Your task to perform on an android device: Open network settings Image 0: 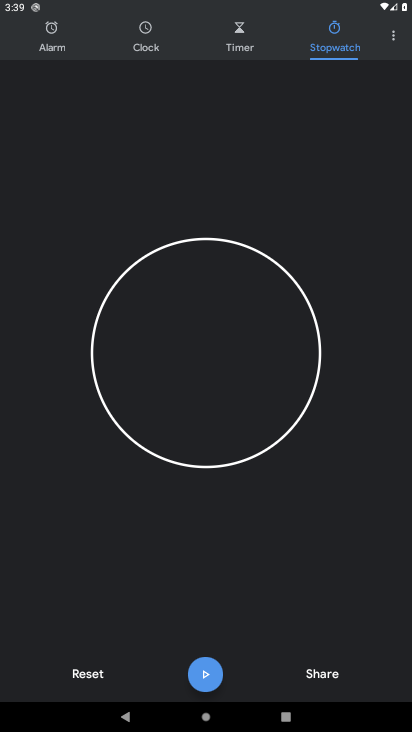
Step 0: press home button
Your task to perform on an android device: Open network settings Image 1: 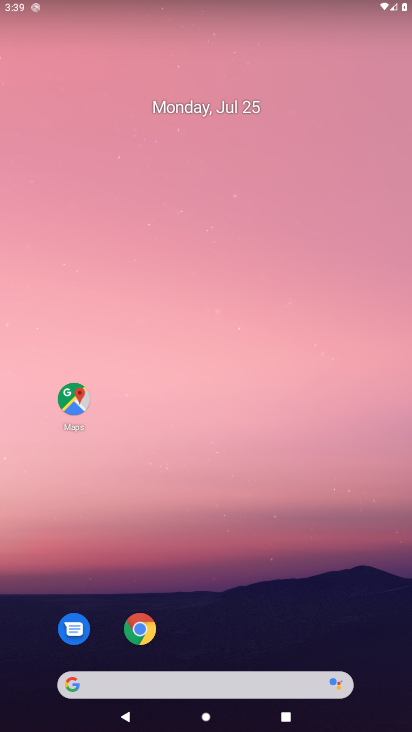
Step 1: drag from (27, 643) to (258, 135)
Your task to perform on an android device: Open network settings Image 2: 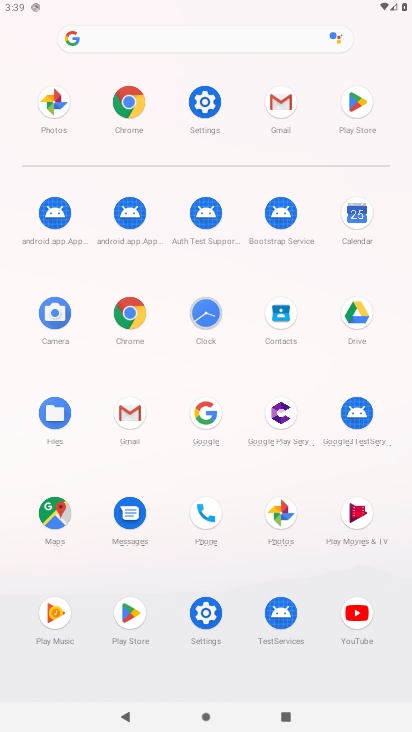
Step 2: click (210, 591)
Your task to perform on an android device: Open network settings Image 3: 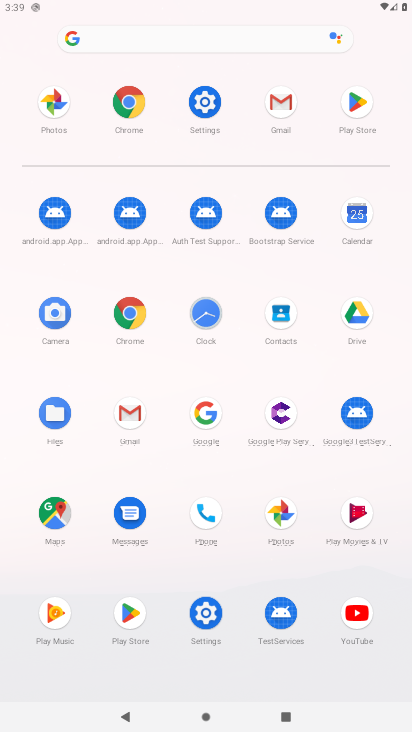
Step 3: click (208, 611)
Your task to perform on an android device: Open network settings Image 4: 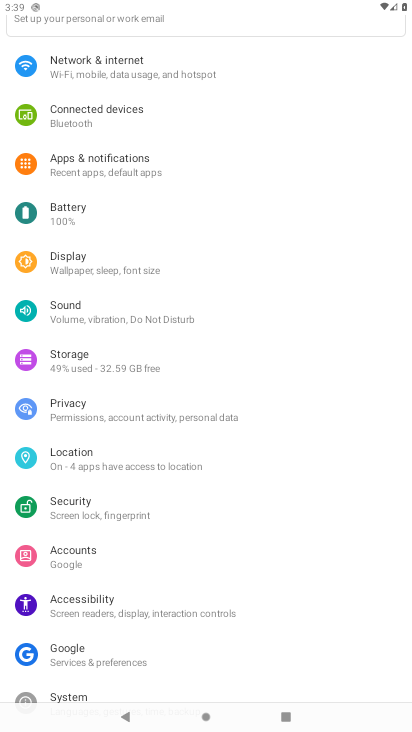
Step 4: click (126, 75)
Your task to perform on an android device: Open network settings Image 5: 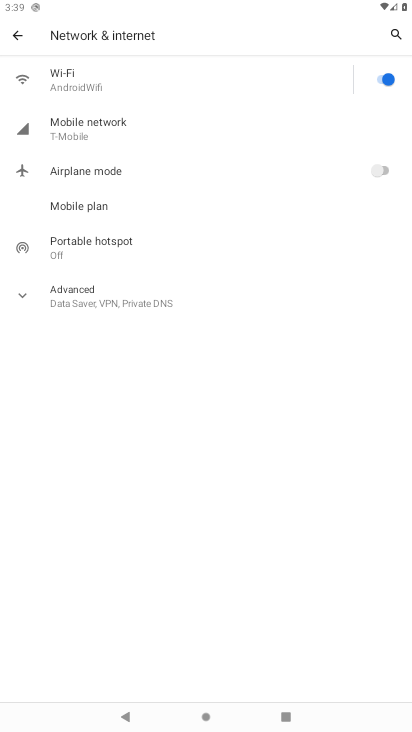
Step 5: task complete